Your task to perform on an android device: Open Wikipedia Image 0: 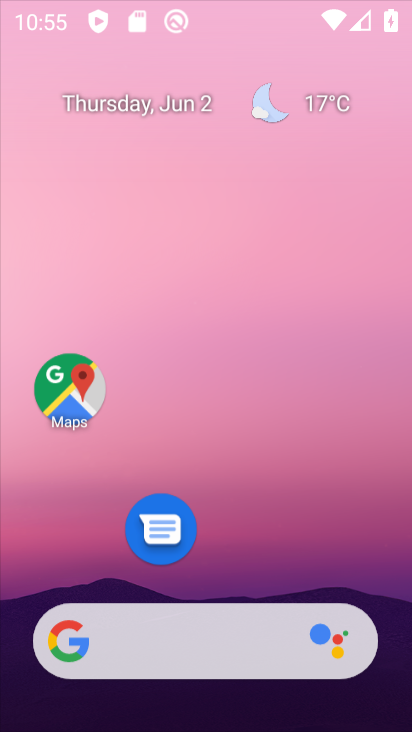
Step 0: click (226, 278)
Your task to perform on an android device: Open Wikipedia Image 1: 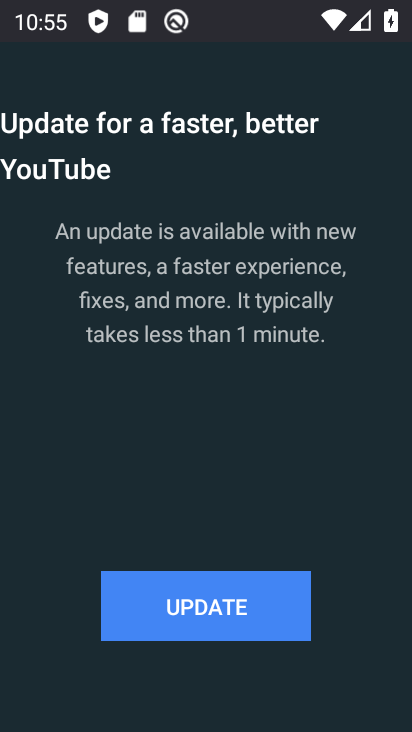
Step 1: click (222, 592)
Your task to perform on an android device: Open Wikipedia Image 2: 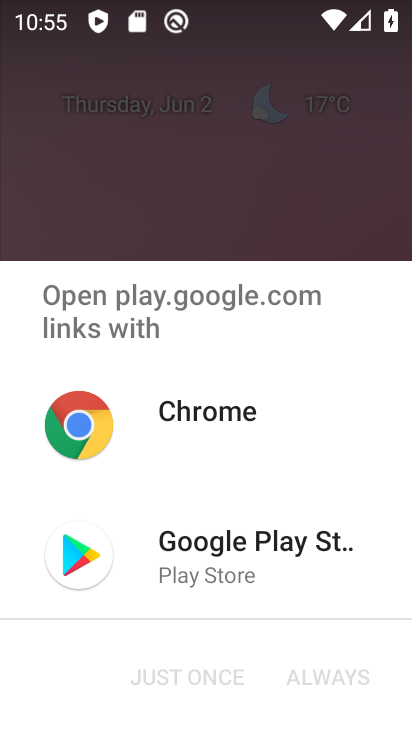
Step 2: press back button
Your task to perform on an android device: Open Wikipedia Image 3: 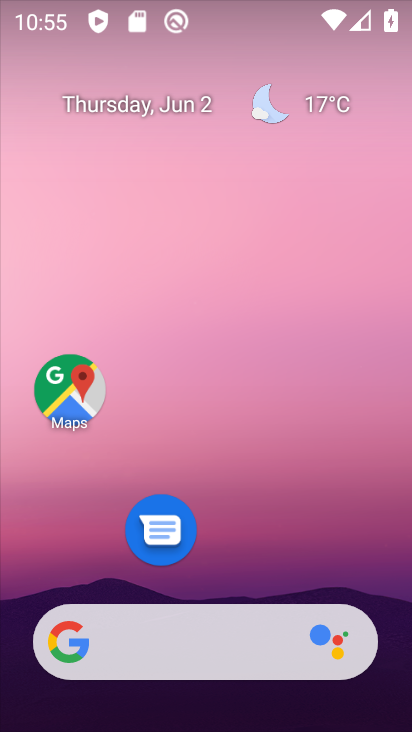
Step 3: drag from (230, 491) to (207, 187)
Your task to perform on an android device: Open Wikipedia Image 4: 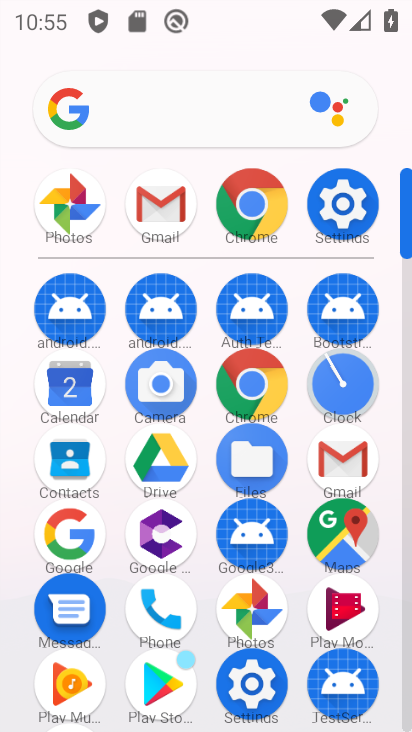
Step 4: click (252, 198)
Your task to perform on an android device: Open Wikipedia Image 5: 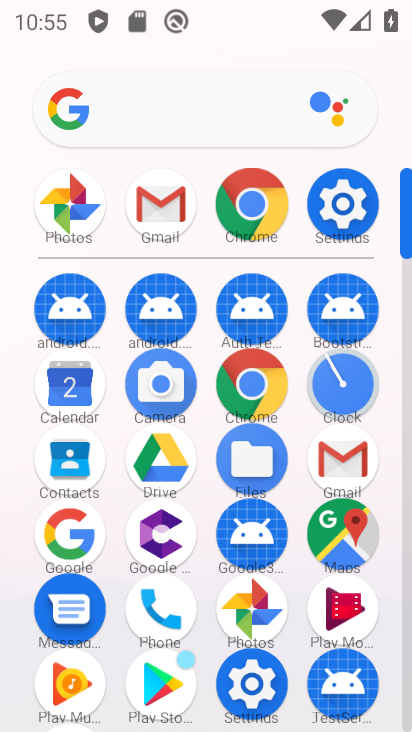
Step 5: click (248, 199)
Your task to perform on an android device: Open Wikipedia Image 6: 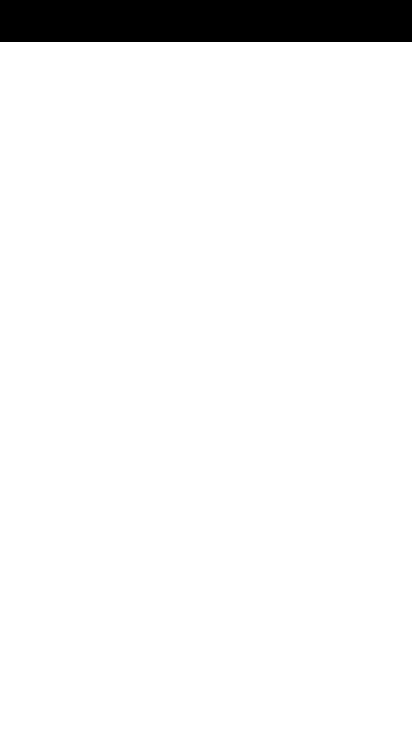
Step 6: click (248, 199)
Your task to perform on an android device: Open Wikipedia Image 7: 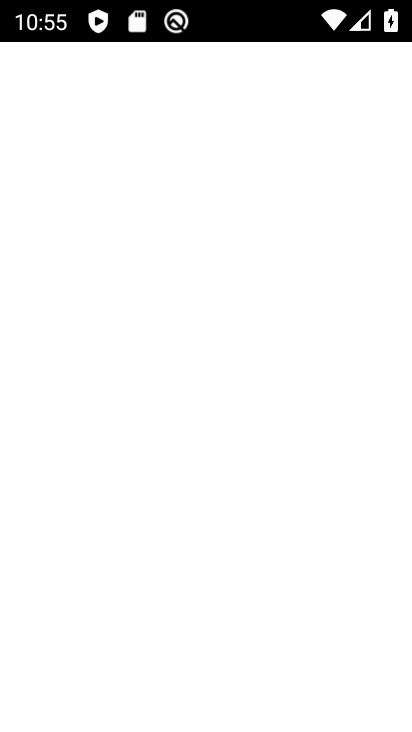
Step 7: click (248, 199)
Your task to perform on an android device: Open Wikipedia Image 8: 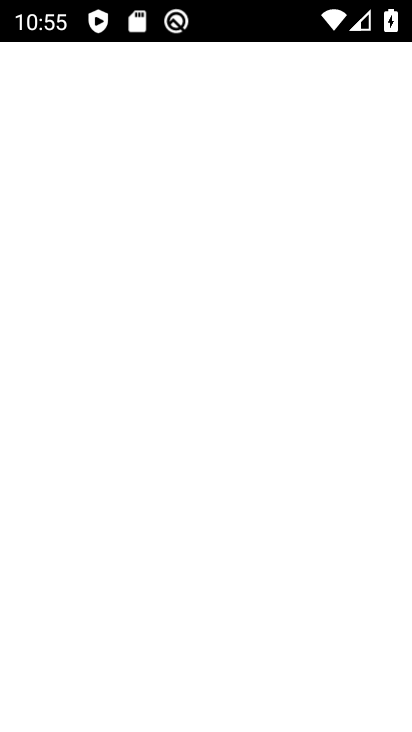
Step 8: click (248, 199)
Your task to perform on an android device: Open Wikipedia Image 9: 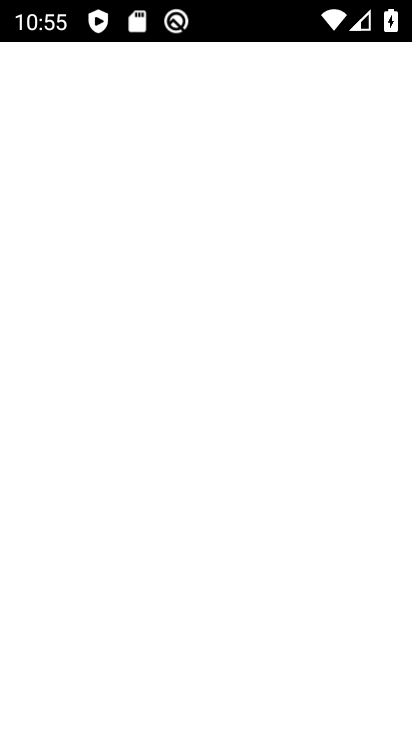
Step 9: click (248, 199)
Your task to perform on an android device: Open Wikipedia Image 10: 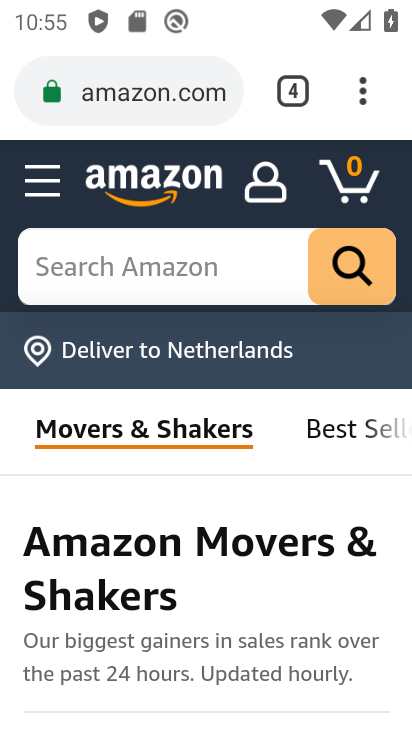
Step 10: click (360, 96)
Your task to perform on an android device: Open Wikipedia Image 11: 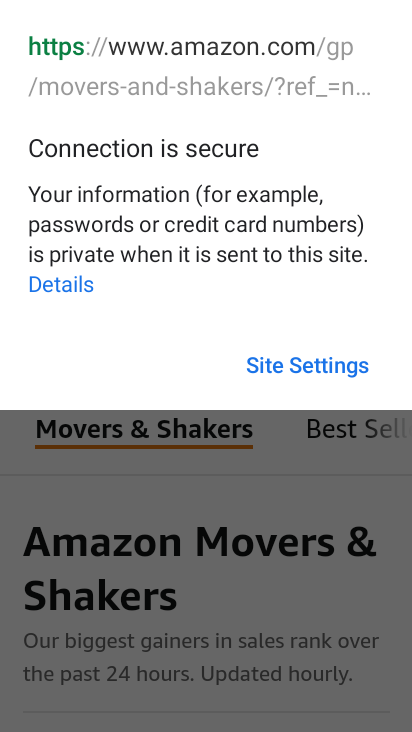
Step 11: click (304, 366)
Your task to perform on an android device: Open Wikipedia Image 12: 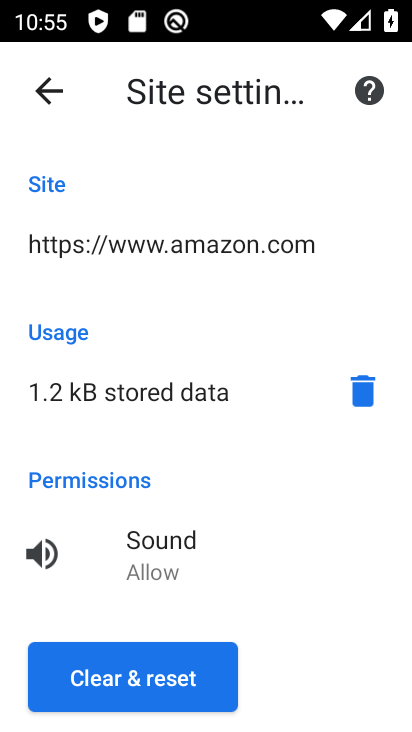
Step 12: click (41, 88)
Your task to perform on an android device: Open Wikipedia Image 13: 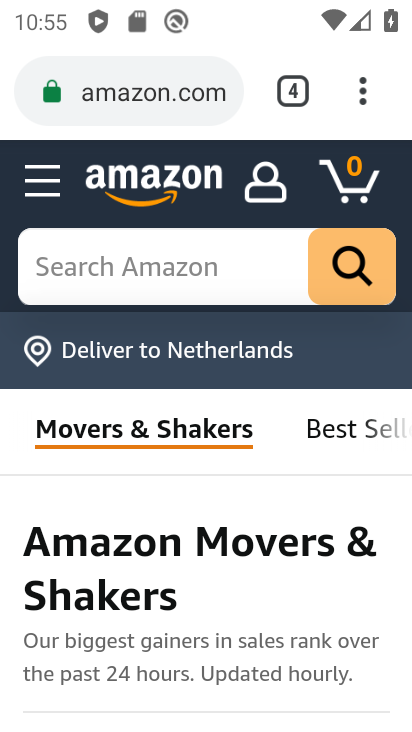
Step 13: drag from (363, 100) to (99, 196)
Your task to perform on an android device: Open Wikipedia Image 14: 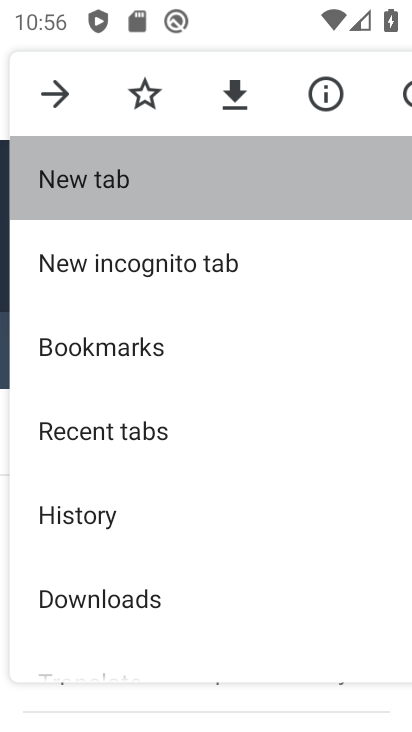
Step 14: click (99, 196)
Your task to perform on an android device: Open Wikipedia Image 15: 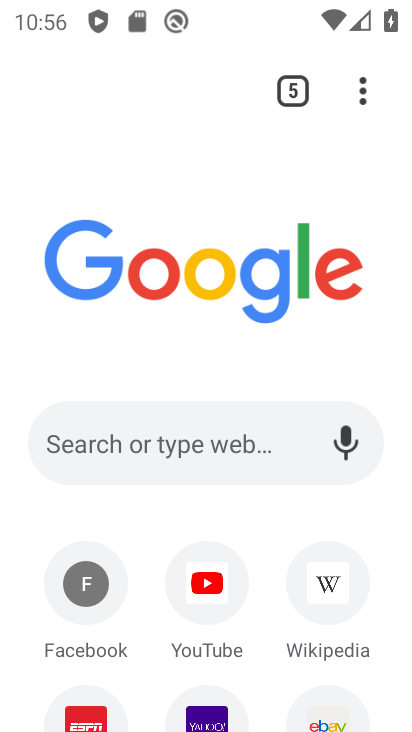
Step 15: drag from (189, 567) to (197, 94)
Your task to perform on an android device: Open Wikipedia Image 16: 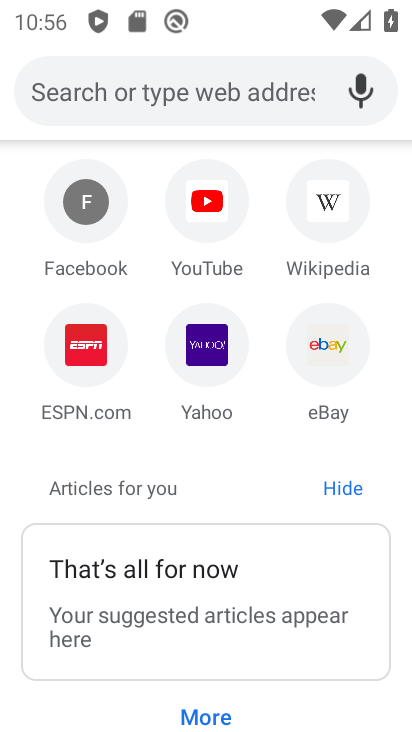
Step 16: drag from (166, 468) to (144, 229)
Your task to perform on an android device: Open Wikipedia Image 17: 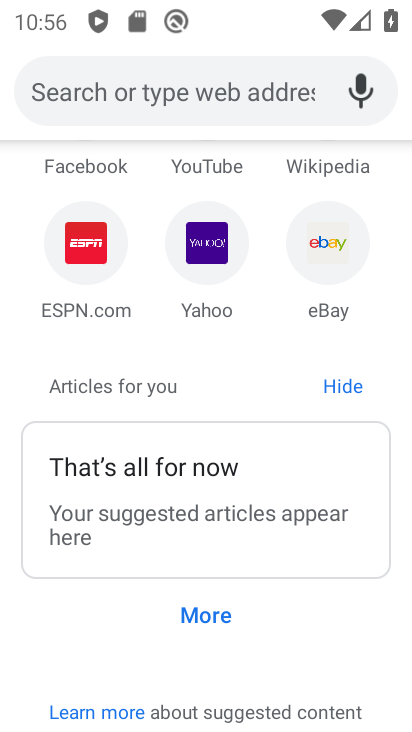
Step 17: drag from (271, 265) to (291, 478)
Your task to perform on an android device: Open Wikipedia Image 18: 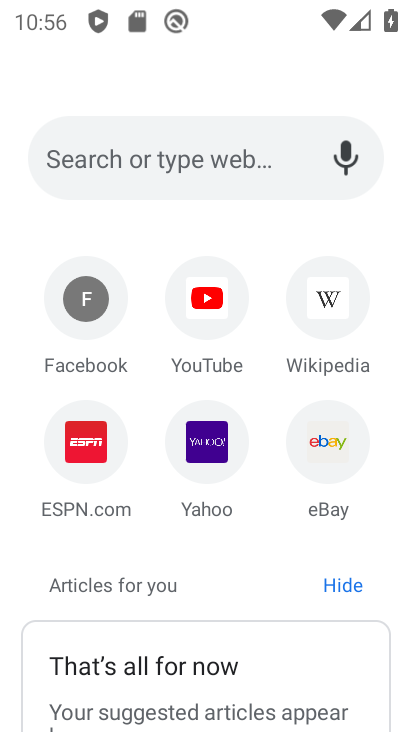
Step 18: drag from (261, 328) to (281, 543)
Your task to perform on an android device: Open Wikipedia Image 19: 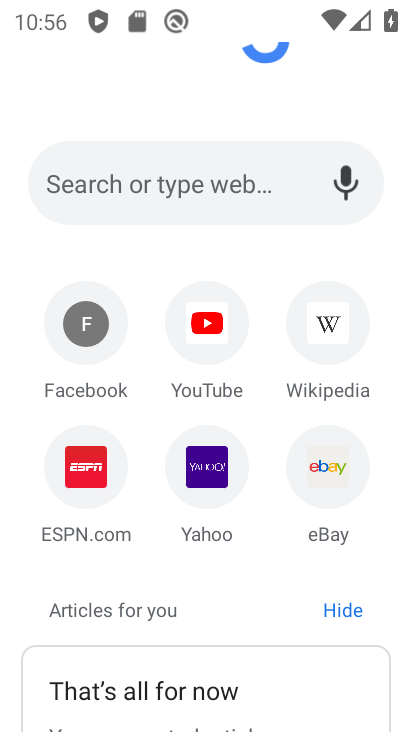
Step 19: click (334, 321)
Your task to perform on an android device: Open Wikipedia Image 20: 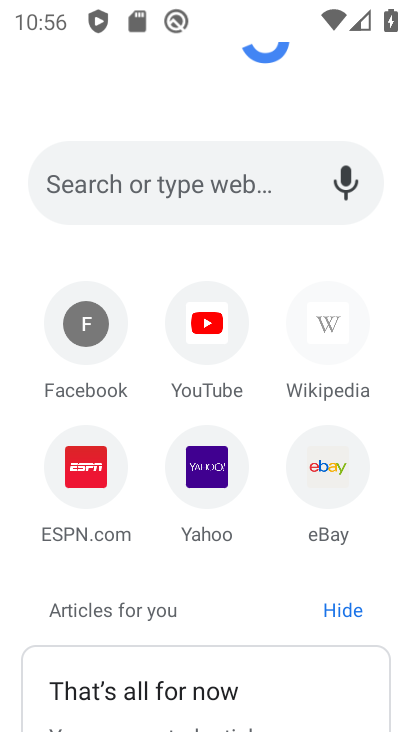
Step 20: click (335, 322)
Your task to perform on an android device: Open Wikipedia Image 21: 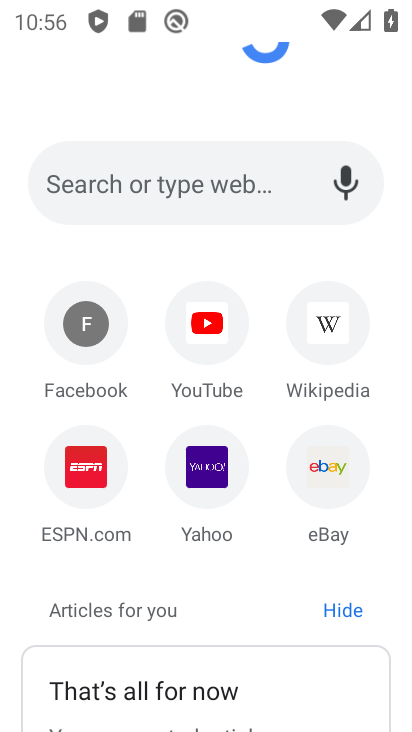
Step 21: click (315, 323)
Your task to perform on an android device: Open Wikipedia Image 22: 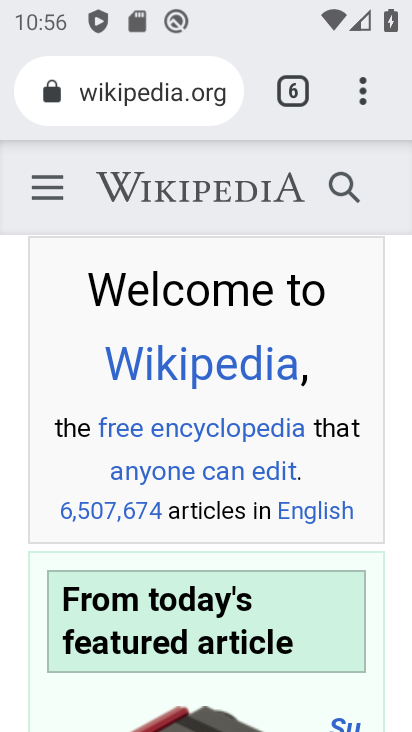
Step 22: task complete